Your task to perform on an android device: Go to display settings Image 0: 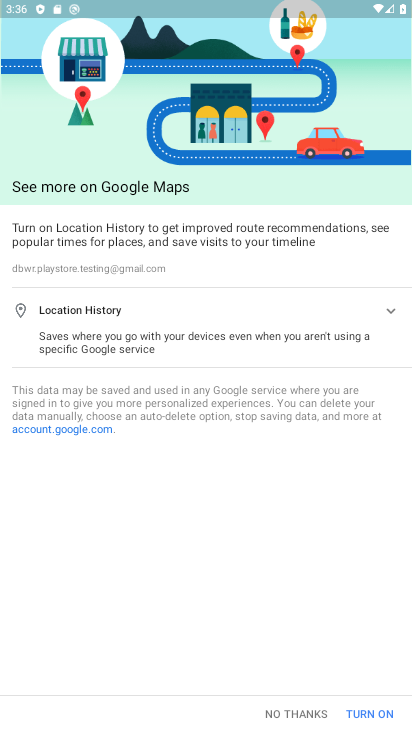
Step 0: drag from (264, 7) to (234, 455)
Your task to perform on an android device: Go to display settings Image 1: 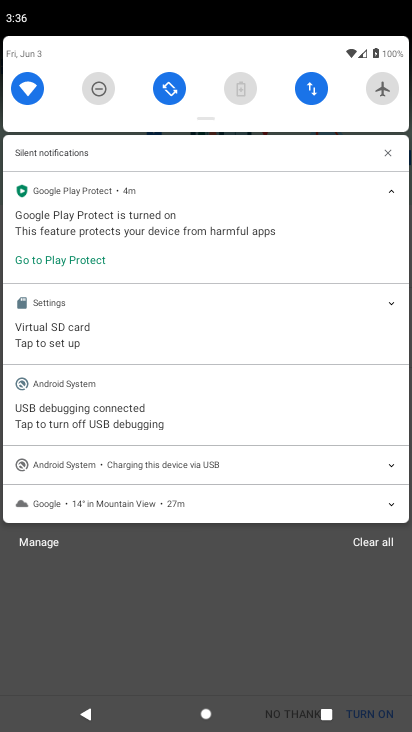
Step 1: drag from (269, 54) to (325, 637)
Your task to perform on an android device: Go to display settings Image 2: 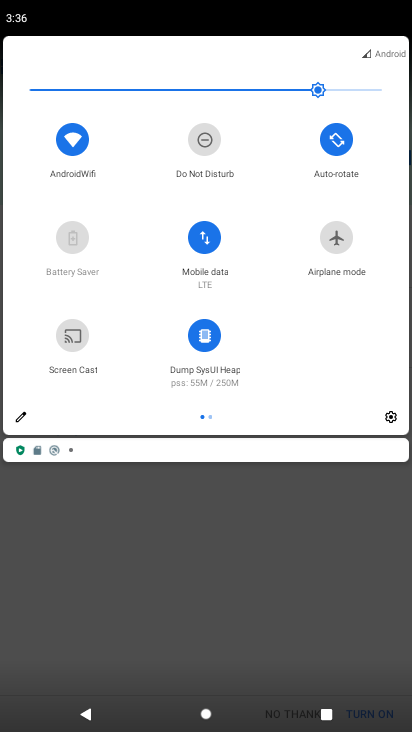
Step 2: click (394, 418)
Your task to perform on an android device: Go to display settings Image 3: 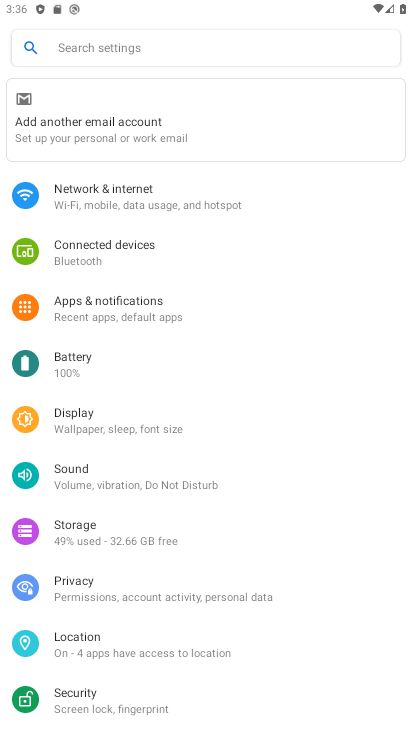
Step 3: click (66, 324)
Your task to perform on an android device: Go to display settings Image 4: 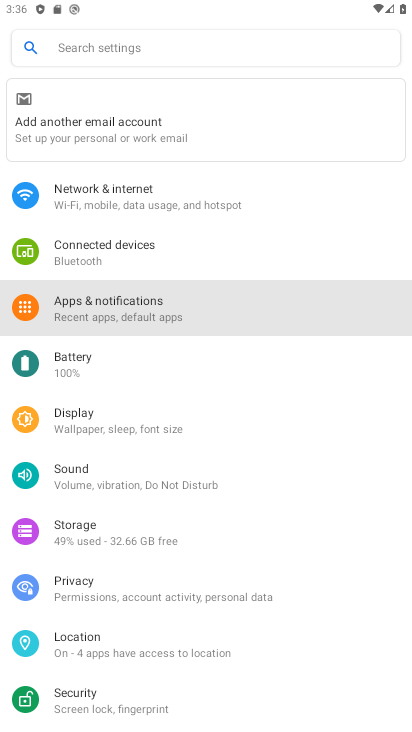
Step 4: click (59, 421)
Your task to perform on an android device: Go to display settings Image 5: 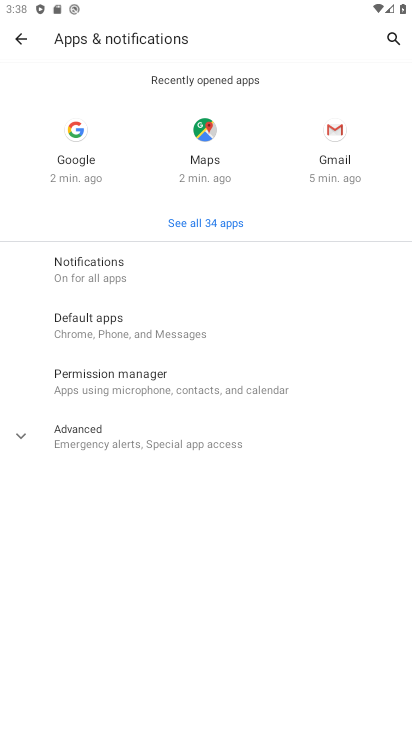
Step 5: drag from (228, 27) to (245, 545)
Your task to perform on an android device: Go to display settings Image 6: 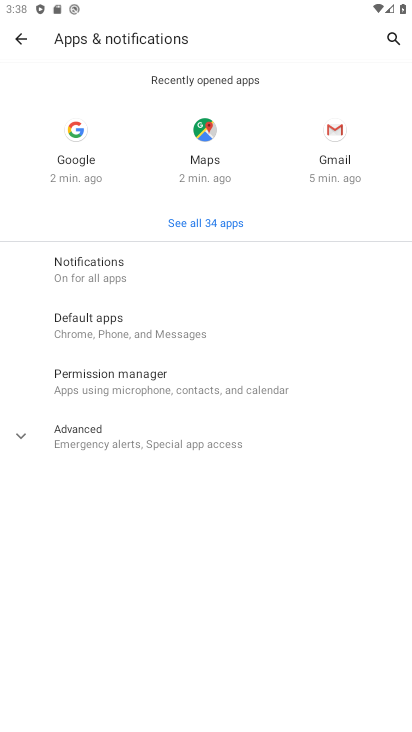
Step 6: click (21, 43)
Your task to perform on an android device: Go to display settings Image 7: 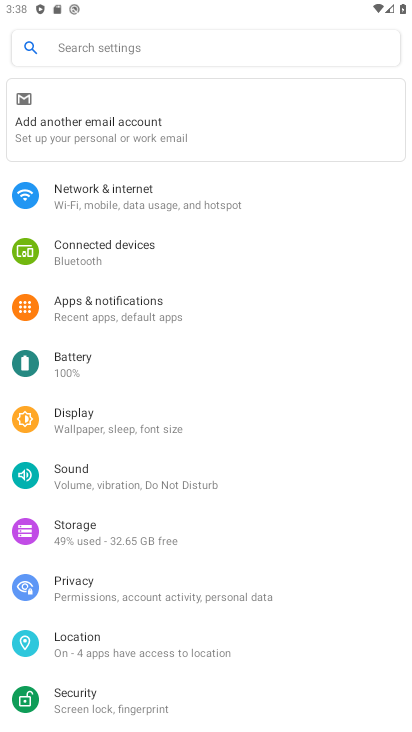
Step 7: click (114, 425)
Your task to perform on an android device: Go to display settings Image 8: 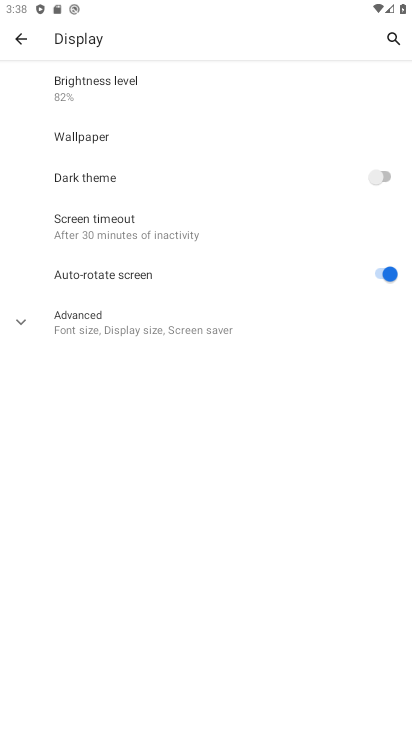
Step 8: task complete